Your task to perform on an android device: Go to Yahoo.com Image 0: 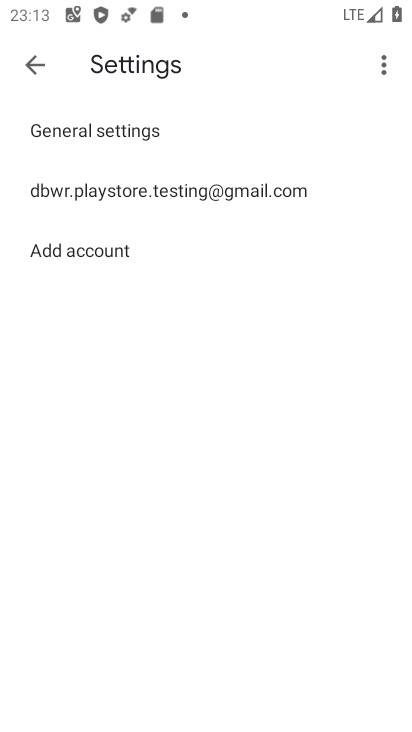
Step 0: press home button
Your task to perform on an android device: Go to Yahoo.com Image 1: 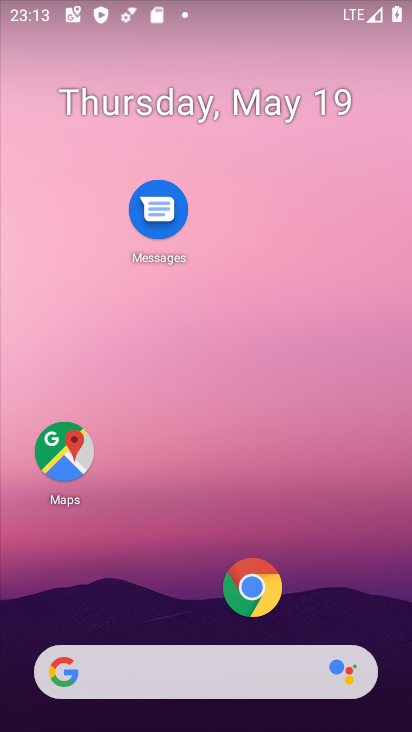
Step 1: click (256, 603)
Your task to perform on an android device: Go to Yahoo.com Image 2: 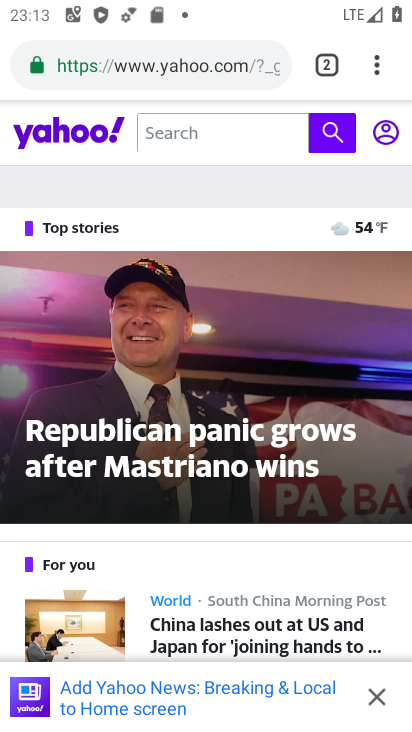
Step 2: task complete